Your task to perform on an android device: Open display settings Image 0: 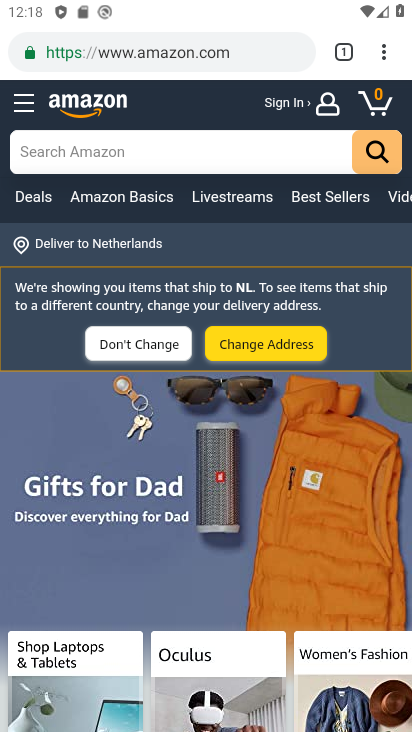
Step 0: press home button
Your task to perform on an android device: Open display settings Image 1: 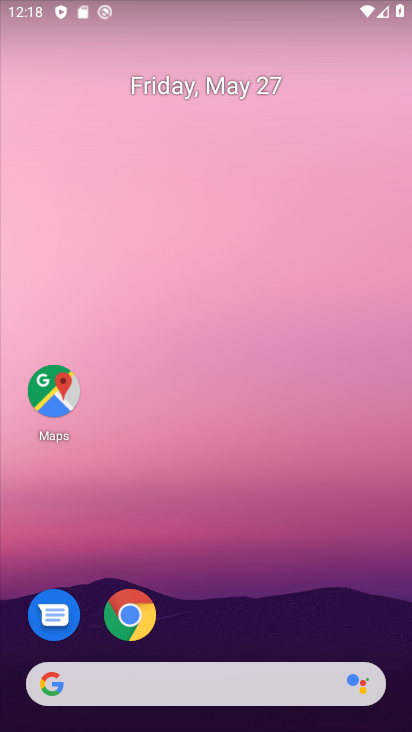
Step 1: drag from (275, 570) to (261, 159)
Your task to perform on an android device: Open display settings Image 2: 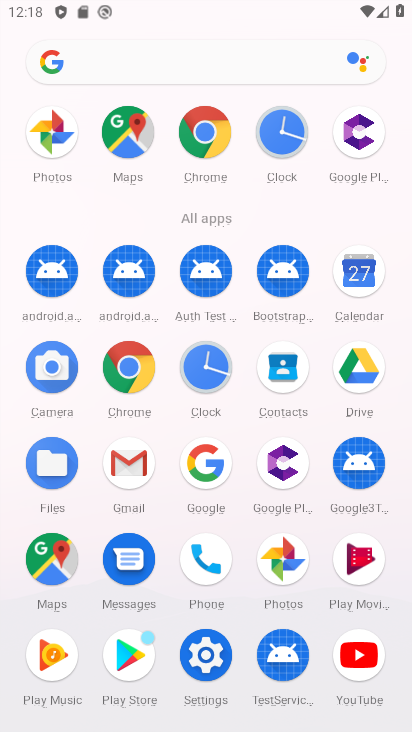
Step 2: click (210, 639)
Your task to perform on an android device: Open display settings Image 3: 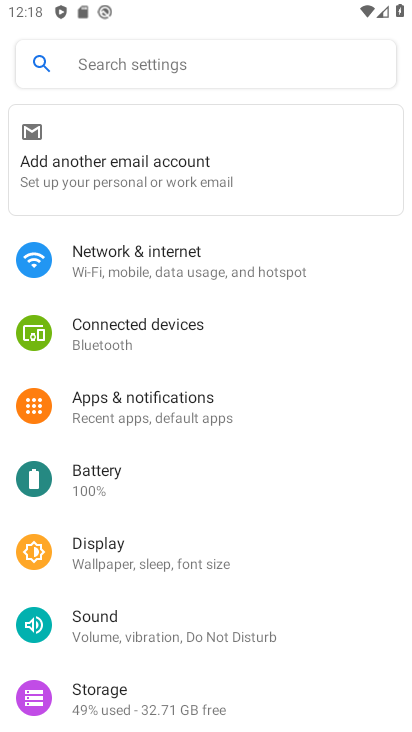
Step 3: click (213, 564)
Your task to perform on an android device: Open display settings Image 4: 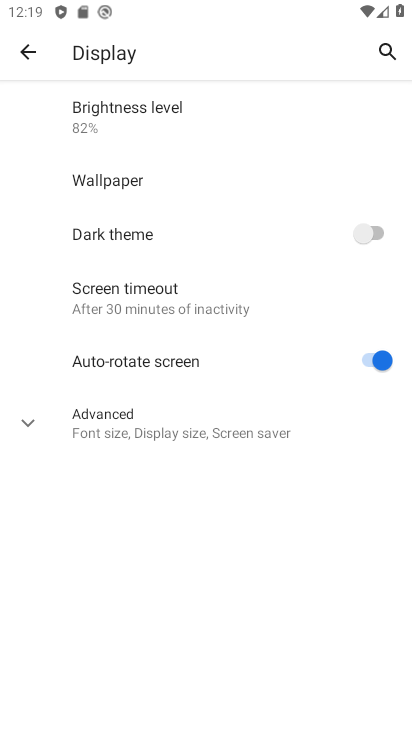
Step 4: task complete